Your task to perform on an android device: Clear the shopping cart on ebay. Add alienware aurora to the cart on ebay Image 0: 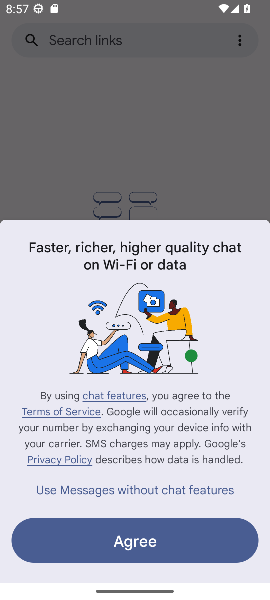
Step 0: press home button
Your task to perform on an android device: Clear the shopping cart on ebay. Add alienware aurora to the cart on ebay Image 1: 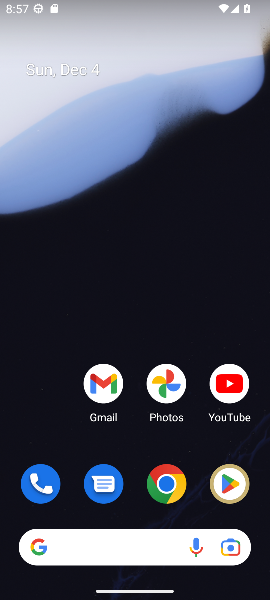
Step 1: click (168, 489)
Your task to perform on an android device: Clear the shopping cart on ebay. Add alienware aurora to the cart on ebay Image 2: 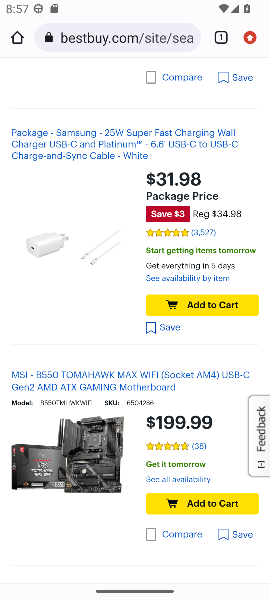
Step 2: click (114, 38)
Your task to perform on an android device: Clear the shopping cart on ebay. Add alienware aurora to the cart on ebay Image 3: 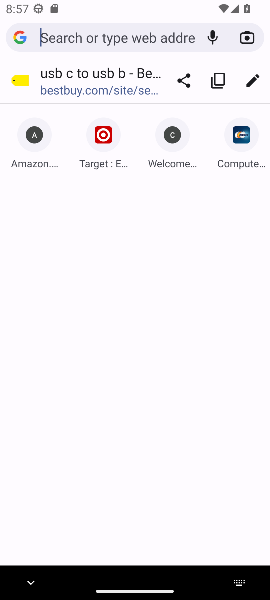
Step 3: type "ebay.com"
Your task to perform on an android device: Clear the shopping cart on ebay. Add alienware aurora to the cart on ebay Image 4: 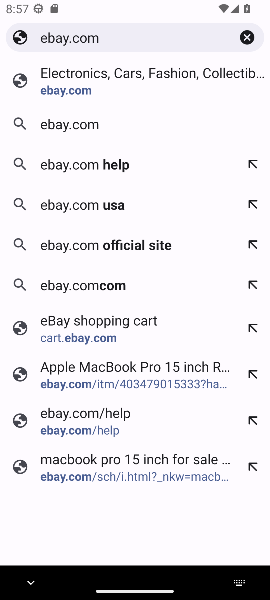
Step 4: click (52, 90)
Your task to perform on an android device: Clear the shopping cart on ebay. Add alienware aurora to the cart on ebay Image 5: 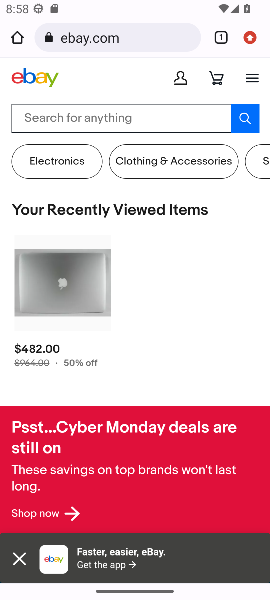
Step 5: click (220, 78)
Your task to perform on an android device: Clear the shopping cart on ebay. Add alienware aurora to the cart on ebay Image 6: 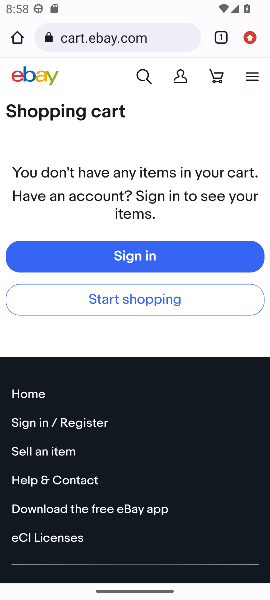
Step 6: click (144, 75)
Your task to perform on an android device: Clear the shopping cart on ebay. Add alienware aurora to the cart on ebay Image 7: 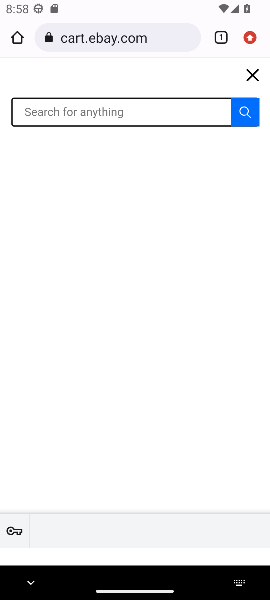
Step 7: type "alienware aurora "
Your task to perform on an android device: Clear the shopping cart on ebay. Add alienware aurora to the cart on ebay Image 8: 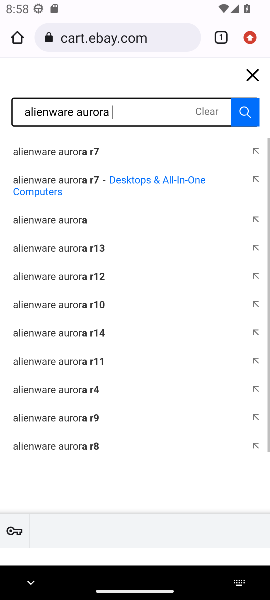
Step 8: click (57, 223)
Your task to perform on an android device: Clear the shopping cart on ebay. Add alienware aurora to the cart on ebay Image 9: 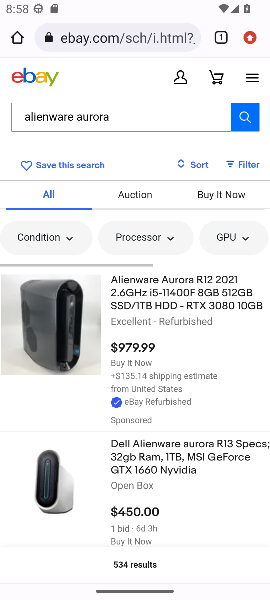
Step 9: click (132, 303)
Your task to perform on an android device: Clear the shopping cart on ebay. Add alienware aurora to the cart on ebay Image 10: 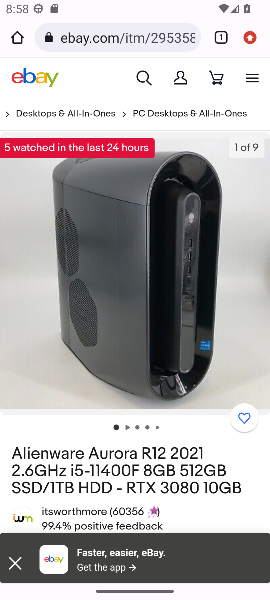
Step 10: drag from (193, 415) to (196, 149)
Your task to perform on an android device: Clear the shopping cart on ebay. Add alienware aurora to the cart on ebay Image 11: 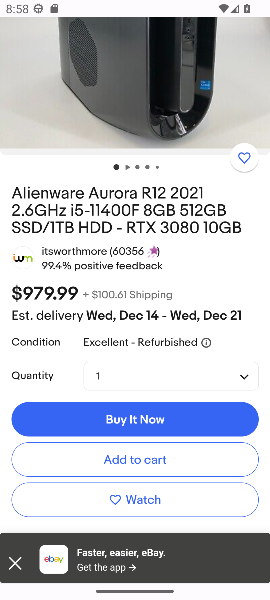
Step 11: click (123, 456)
Your task to perform on an android device: Clear the shopping cart on ebay. Add alienware aurora to the cart on ebay Image 12: 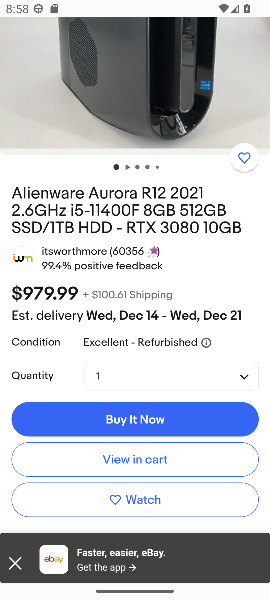
Step 12: task complete